Your task to perform on an android device: Look up the best rated desk lamps on IKEA Image 0: 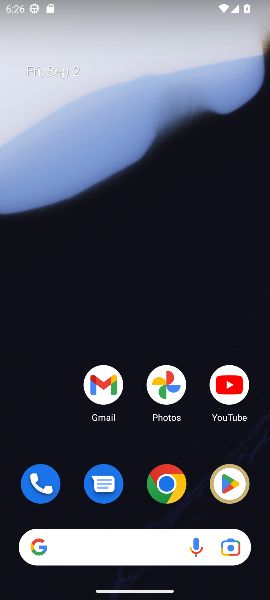
Step 0: click (168, 483)
Your task to perform on an android device: Look up the best rated desk lamps on IKEA Image 1: 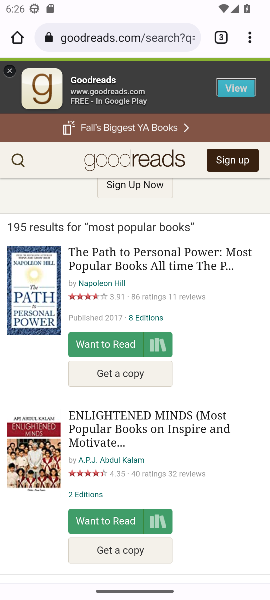
Step 1: click (161, 33)
Your task to perform on an android device: Look up the best rated desk lamps on IKEA Image 2: 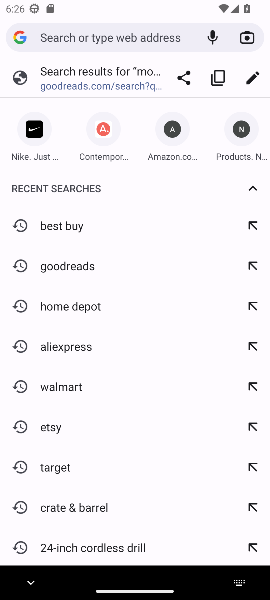
Step 2: type "IKEA"
Your task to perform on an android device: Look up the best rated desk lamps on IKEA Image 3: 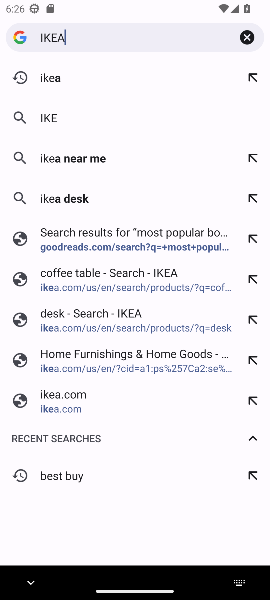
Step 3: press enter
Your task to perform on an android device: Look up the best rated desk lamps on IKEA Image 4: 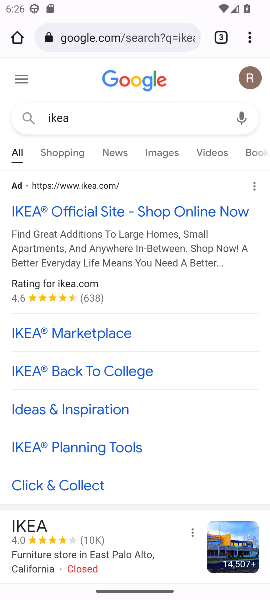
Step 4: drag from (103, 425) to (219, 100)
Your task to perform on an android device: Look up the best rated desk lamps on IKEA Image 5: 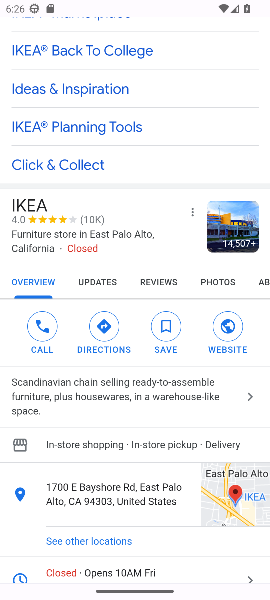
Step 5: drag from (117, 461) to (174, 142)
Your task to perform on an android device: Look up the best rated desk lamps on IKEA Image 6: 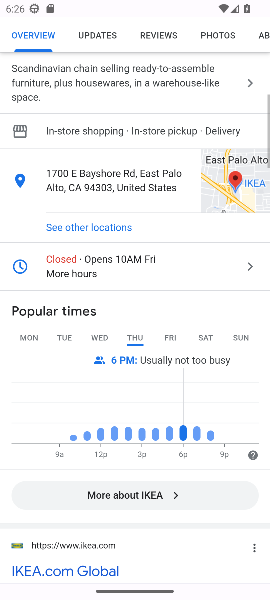
Step 6: drag from (124, 418) to (113, 548)
Your task to perform on an android device: Look up the best rated desk lamps on IKEA Image 7: 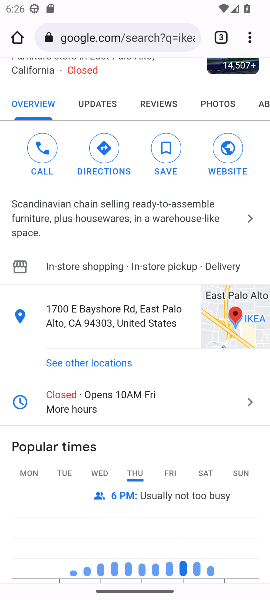
Step 7: drag from (167, 229) to (159, 450)
Your task to perform on an android device: Look up the best rated desk lamps on IKEA Image 8: 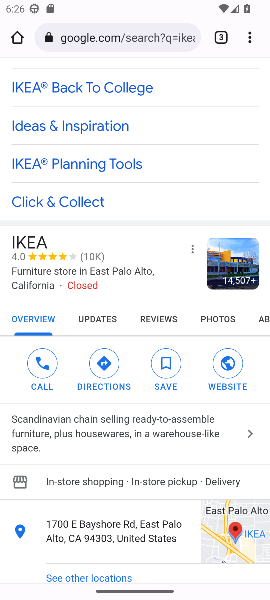
Step 8: drag from (208, 115) to (179, 448)
Your task to perform on an android device: Look up the best rated desk lamps on IKEA Image 9: 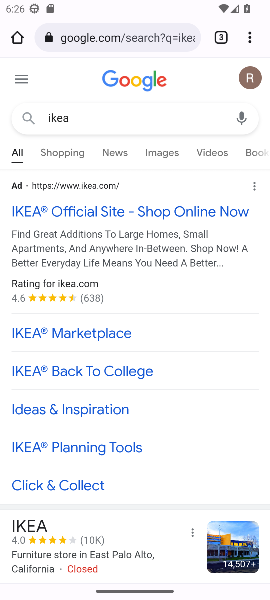
Step 9: click (163, 211)
Your task to perform on an android device: Look up the best rated desk lamps on IKEA Image 10: 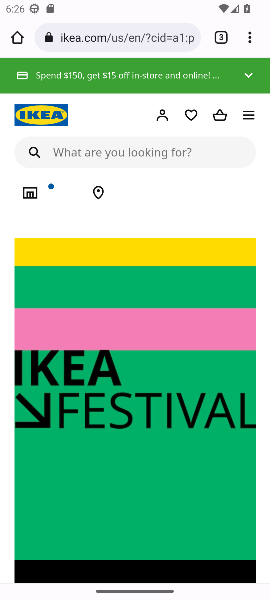
Step 10: click (126, 144)
Your task to perform on an android device: Look up the best rated desk lamps on IKEA Image 11: 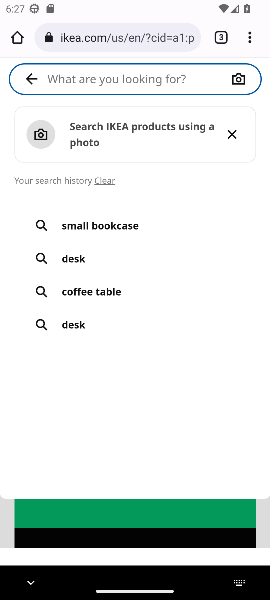
Step 11: type " desk lamps"
Your task to perform on an android device: Look up the best rated desk lamps on IKEA Image 12: 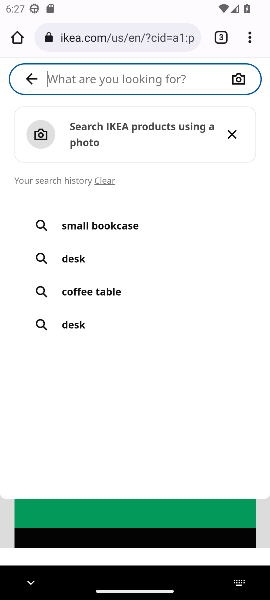
Step 12: press enter
Your task to perform on an android device: Look up the best rated desk lamps on IKEA Image 13: 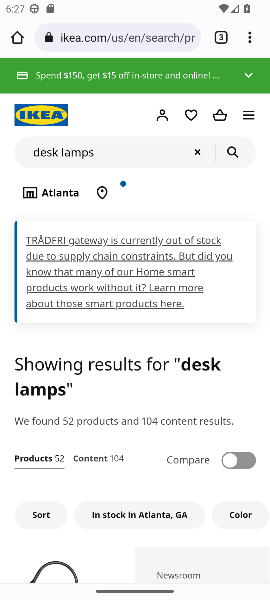
Step 13: task complete